Your task to perform on an android device: open app "Airtel Thanks" (install if not already installed), go to login, and select forgot password Image 0: 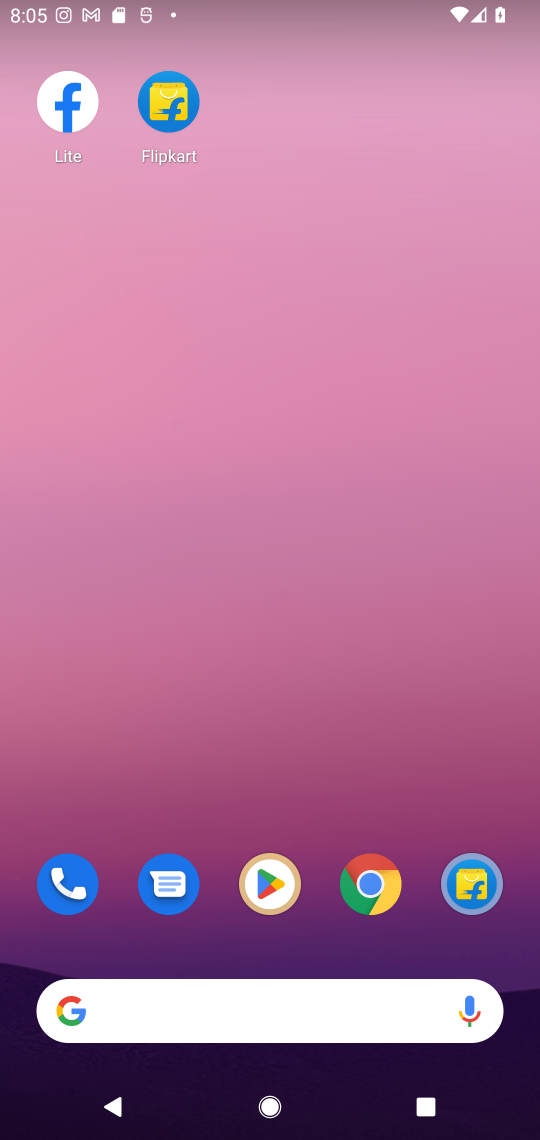
Step 0: drag from (176, 1011) to (347, 106)
Your task to perform on an android device: open app "Airtel Thanks" (install if not already installed), go to login, and select forgot password Image 1: 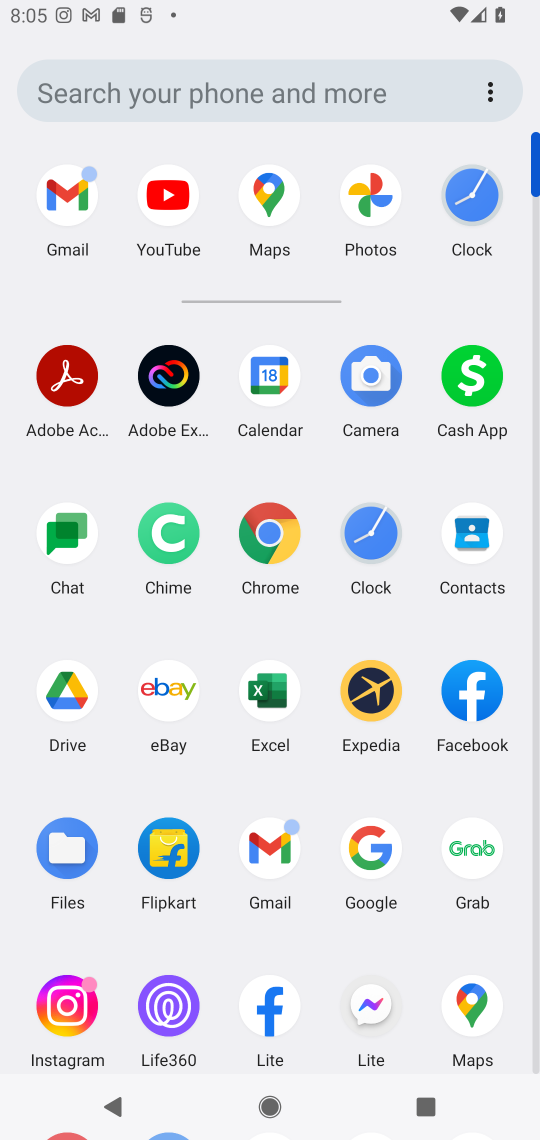
Step 1: drag from (216, 938) to (270, 374)
Your task to perform on an android device: open app "Airtel Thanks" (install if not already installed), go to login, and select forgot password Image 2: 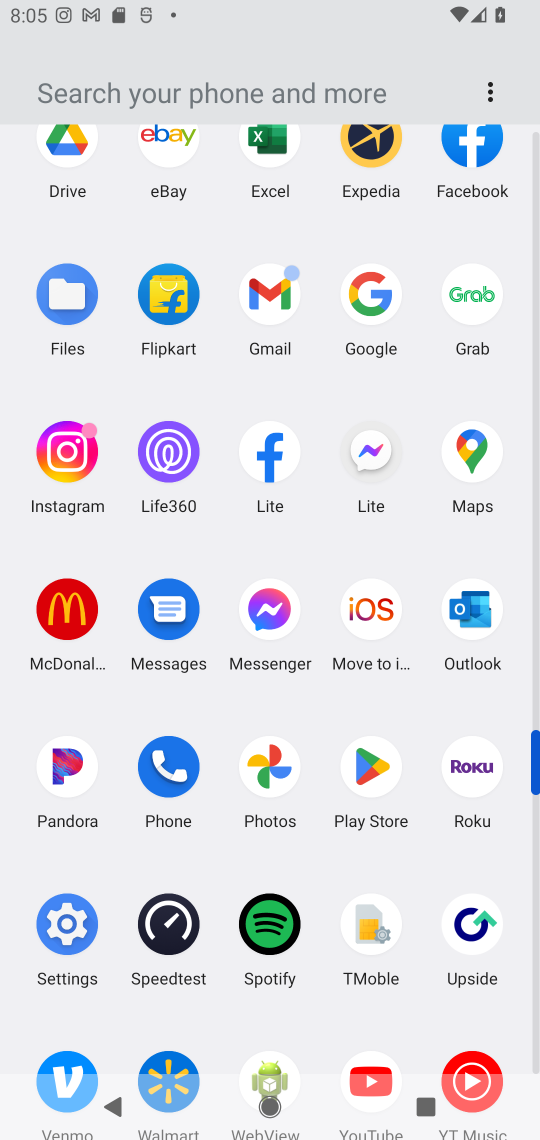
Step 2: click (376, 773)
Your task to perform on an android device: open app "Airtel Thanks" (install if not already installed), go to login, and select forgot password Image 3: 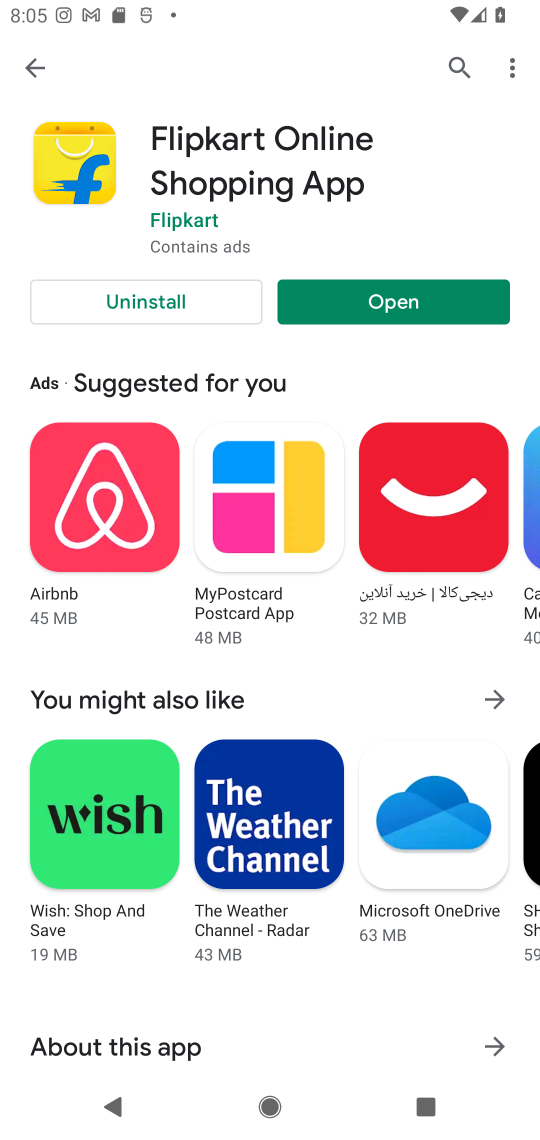
Step 3: press back button
Your task to perform on an android device: open app "Airtel Thanks" (install if not already installed), go to login, and select forgot password Image 4: 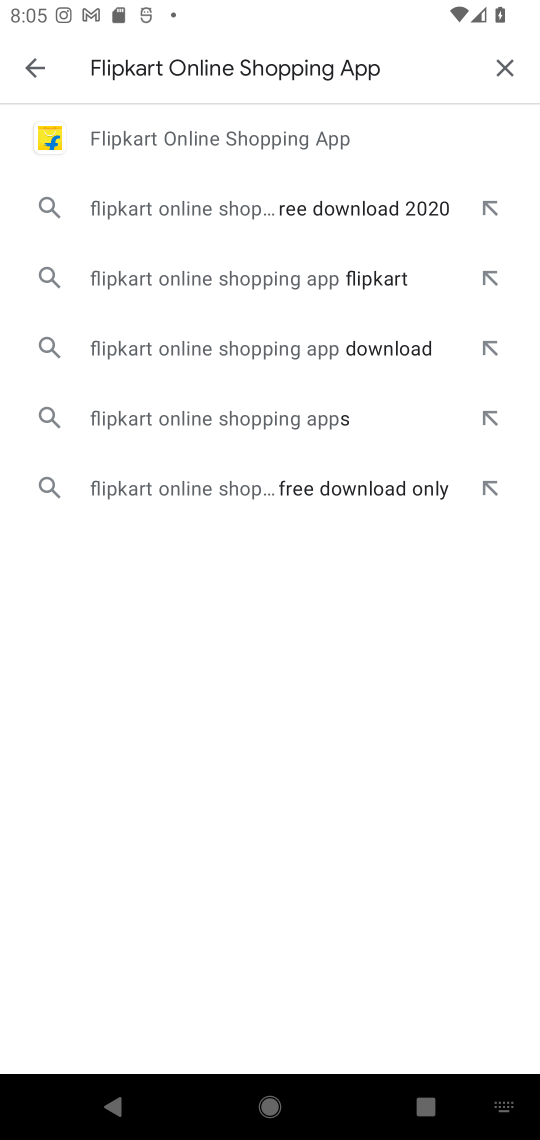
Step 4: press back button
Your task to perform on an android device: open app "Airtel Thanks" (install if not already installed), go to login, and select forgot password Image 5: 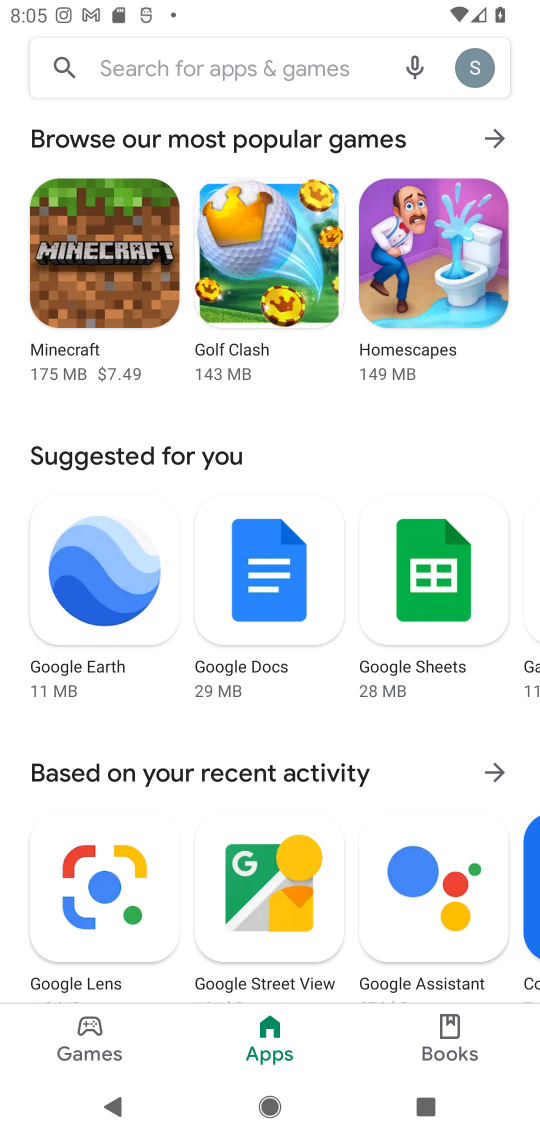
Step 5: click (297, 56)
Your task to perform on an android device: open app "Airtel Thanks" (install if not already installed), go to login, and select forgot password Image 6: 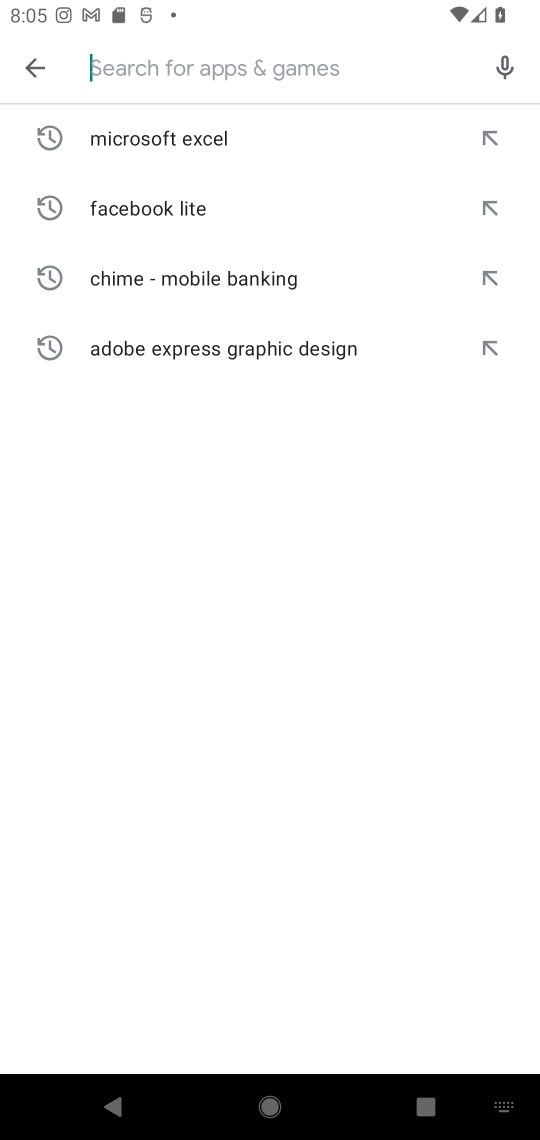
Step 6: type "Airtel Thanks"
Your task to perform on an android device: open app "Airtel Thanks" (install if not already installed), go to login, and select forgot password Image 7: 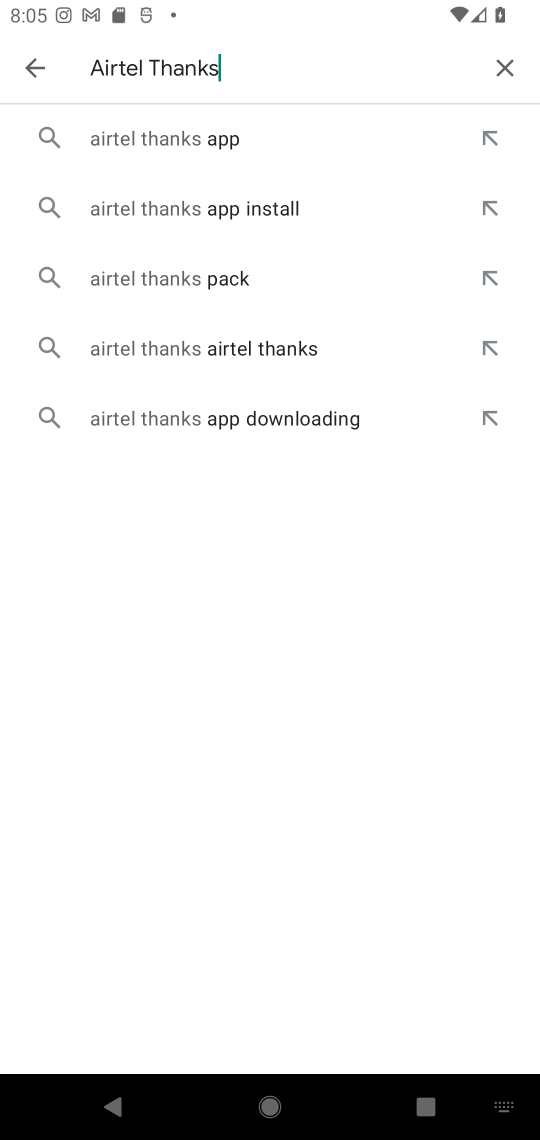
Step 7: click (201, 136)
Your task to perform on an android device: open app "Airtel Thanks" (install if not already installed), go to login, and select forgot password Image 8: 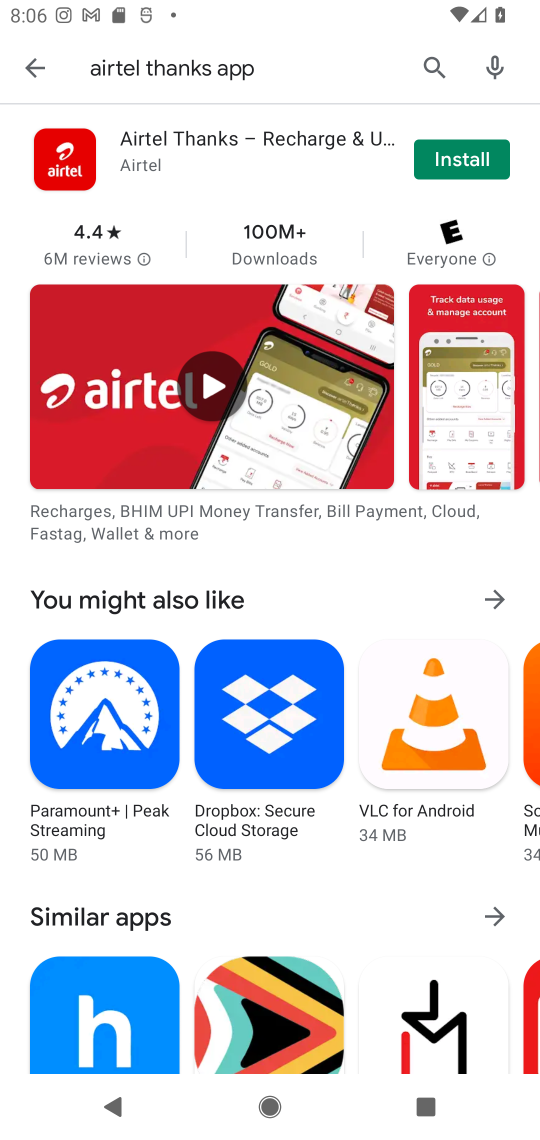
Step 8: click (464, 169)
Your task to perform on an android device: open app "Airtel Thanks" (install if not already installed), go to login, and select forgot password Image 9: 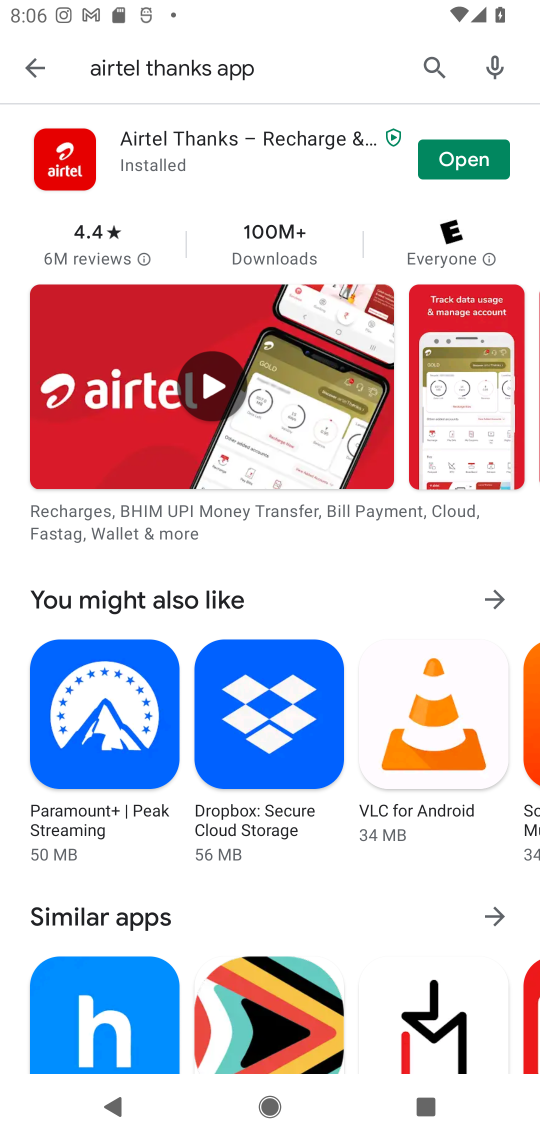
Step 9: click (475, 160)
Your task to perform on an android device: open app "Airtel Thanks" (install if not already installed), go to login, and select forgot password Image 10: 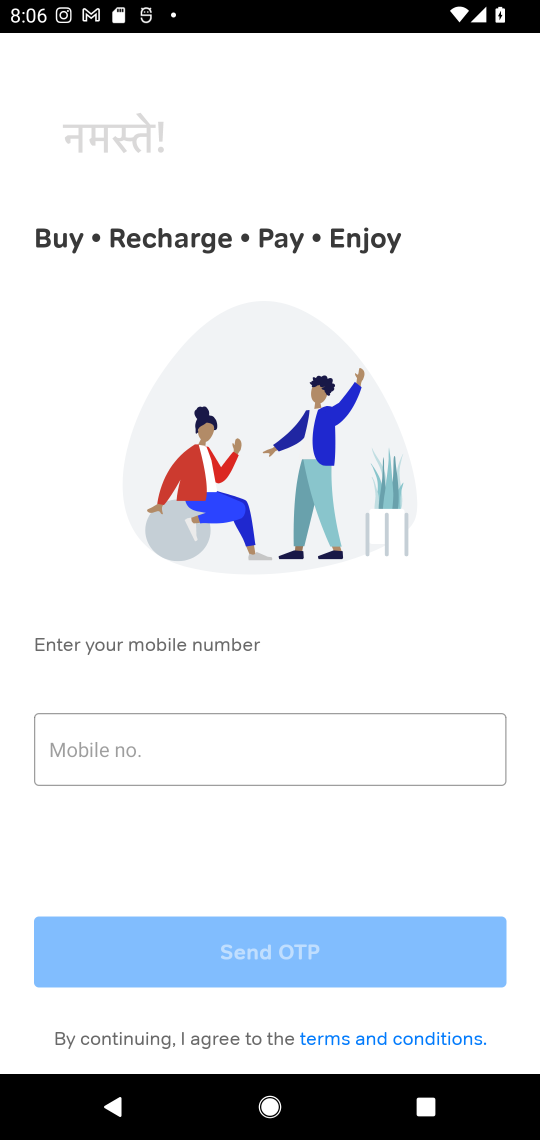
Step 10: task complete